Your task to perform on an android device: turn on priority inbox in the gmail app Image 0: 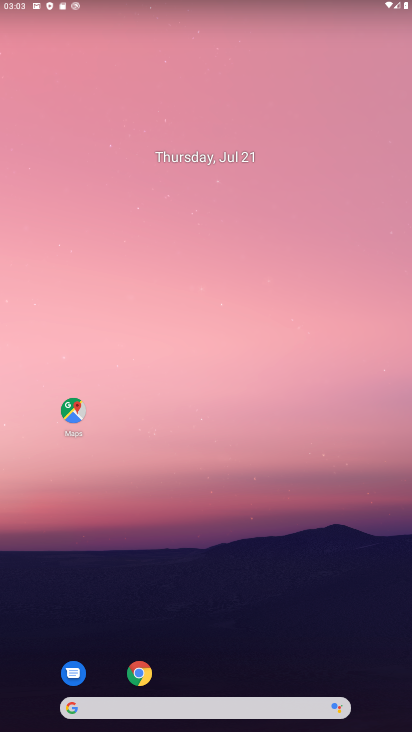
Step 0: drag from (284, 631) to (251, 161)
Your task to perform on an android device: turn on priority inbox in the gmail app Image 1: 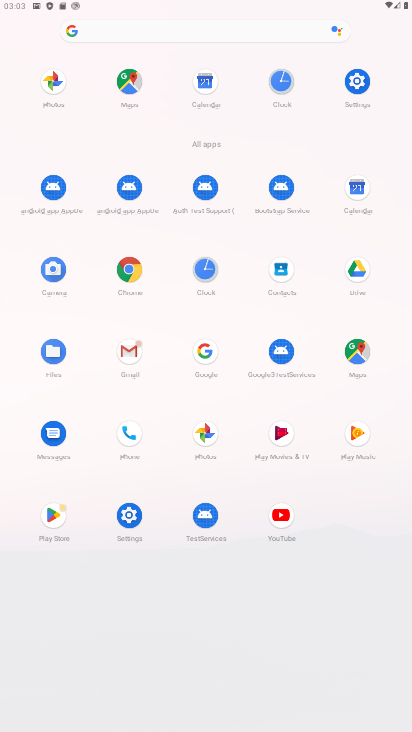
Step 1: click (116, 349)
Your task to perform on an android device: turn on priority inbox in the gmail app Image 2: 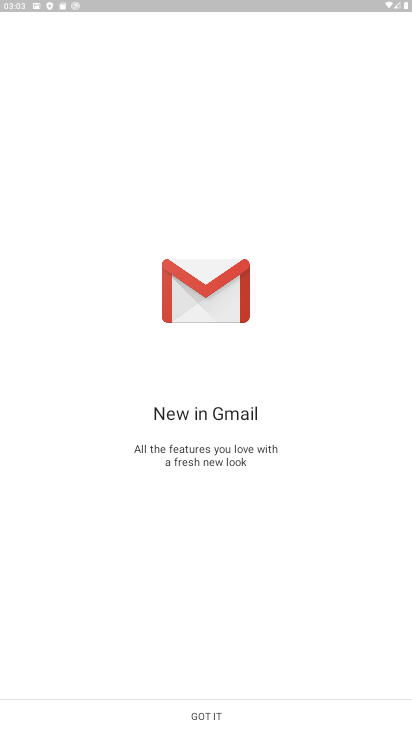
Step 2: click (249, 709)
Your task to perform on an android device: turn on priority inbox in the gmail app Image 3: 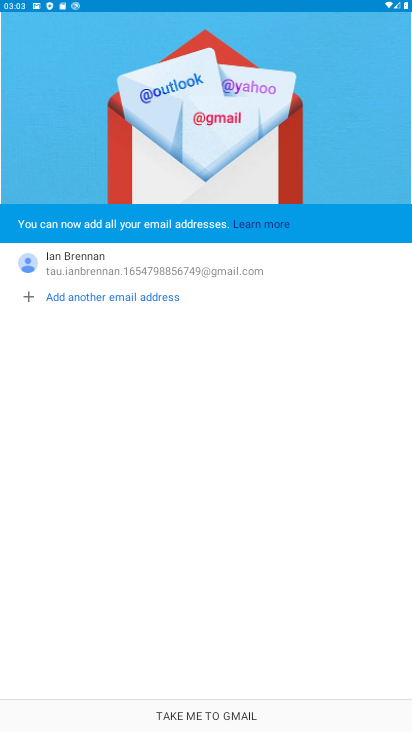
Step 3: click (235, 712)
Your task to perform on an android device: turn on priority inbox in the gmail app Image 4: 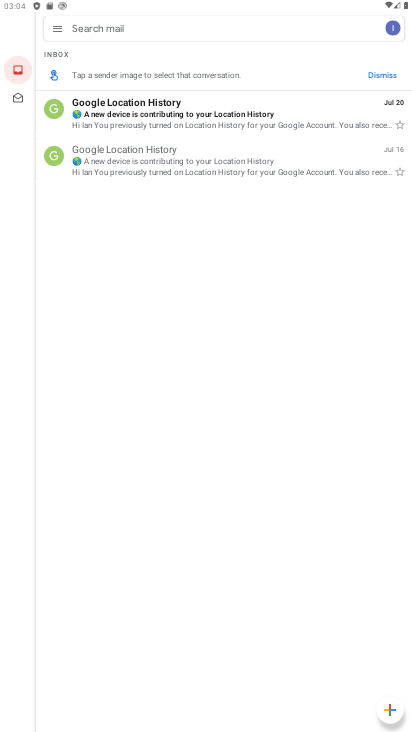
Step 4: click (56, 29)
Your task to perform on an android device: turn on priority inbox in the gmail app Image 5: 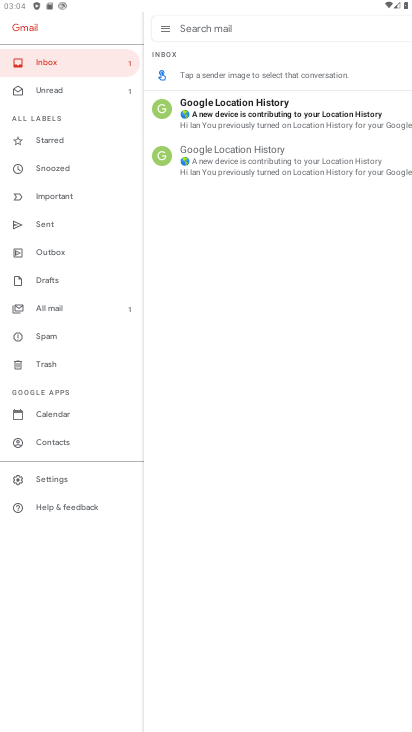
Step 5: click (50, 480)
Your task to perform on an android device: turn on priority inbox in the gmail app Image 6: 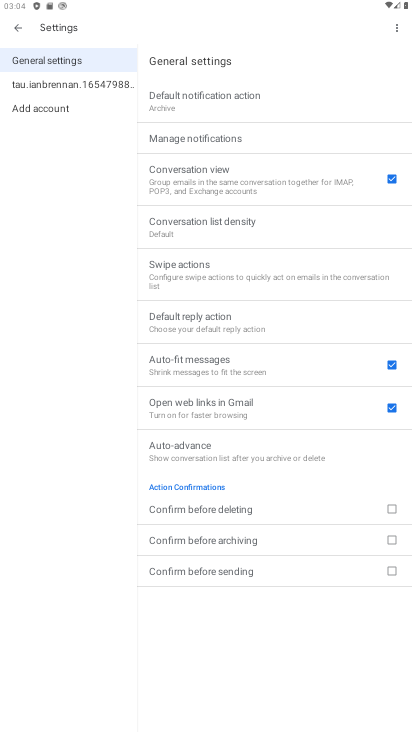
Step 6: click (112, 89)
Your task to perform on an android device: turn on priority inbox in the gmail app Image 7: 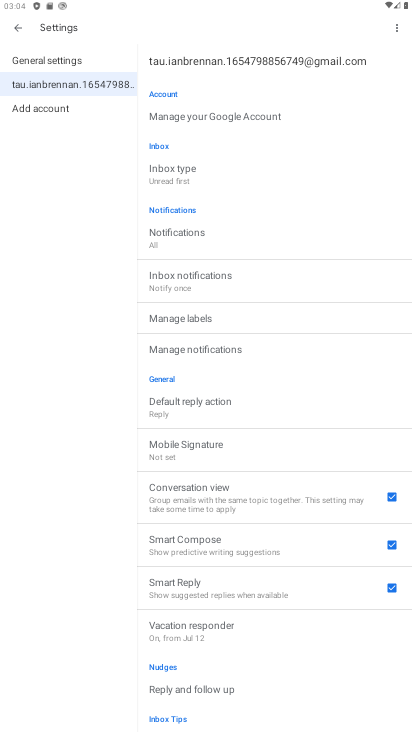
Step 7: click (173, 169)
Your task to perform on an android device: turn on priority inbox in the gmail app Image 8: 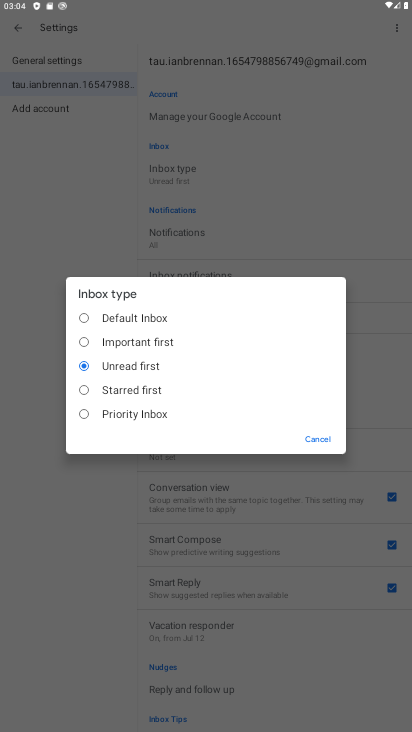
Step 8: task complete